Your task to perform on an android device: turn off translation in the chrome app Image 0: 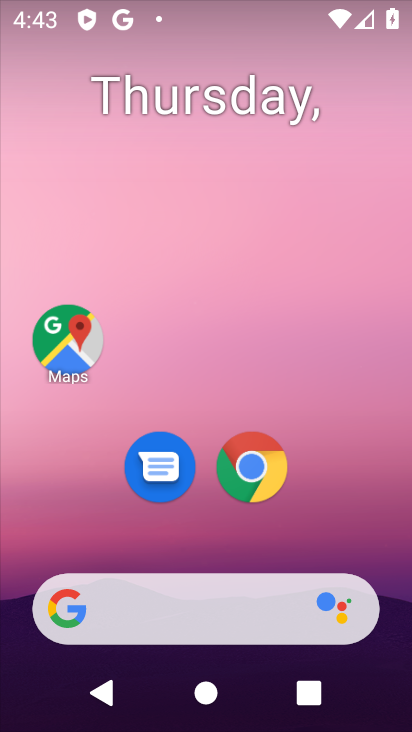
Step 0: click (262, 466)
Your task to perform on an android device: turn off translation in the chrome app Image 1: 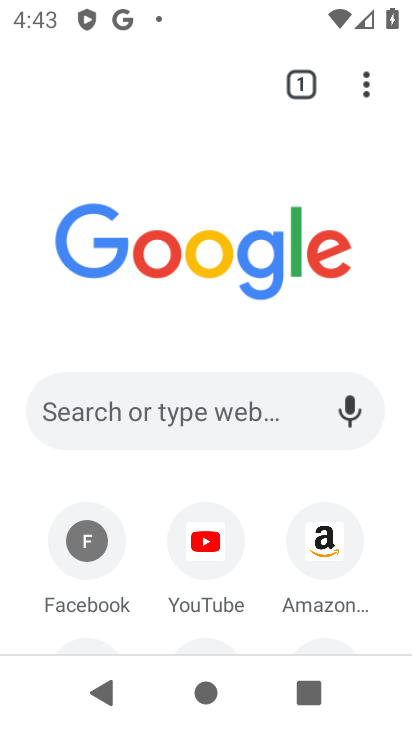
Step 1: drag from (358, 85) to (136, 527)
Your task to perform on an android device: turn off translation in the chrome app Image 2: 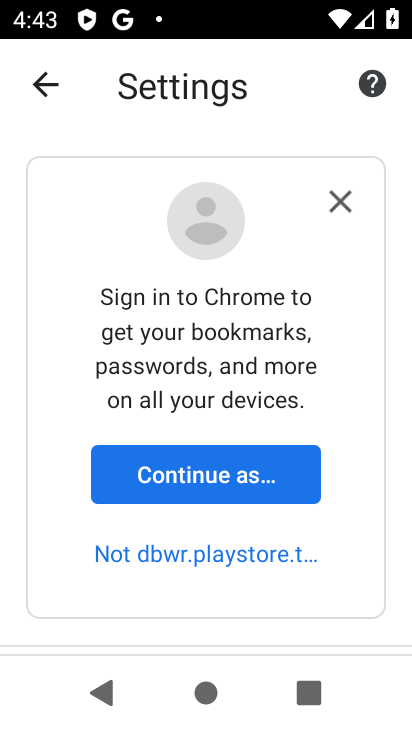
Step 2: drag from (253, 594) to (257, 337)
Your task to perform on an android device: turn off translation in the chrome app Image 3: 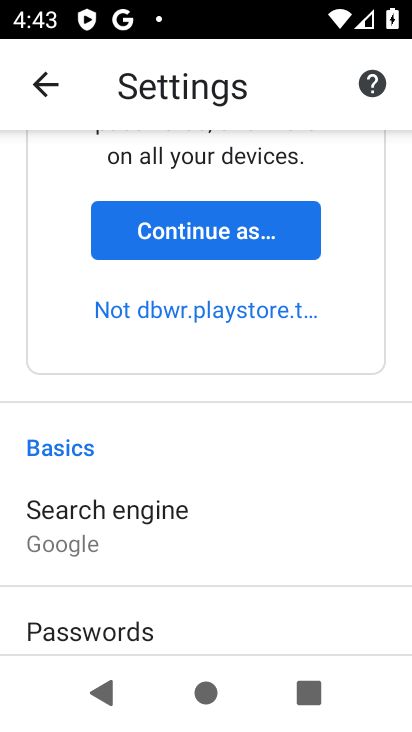
Step 3: drag from (251, 531) to (231, 349)
Your task to perform on an android device: turn off translation in the chrome app Image 4: 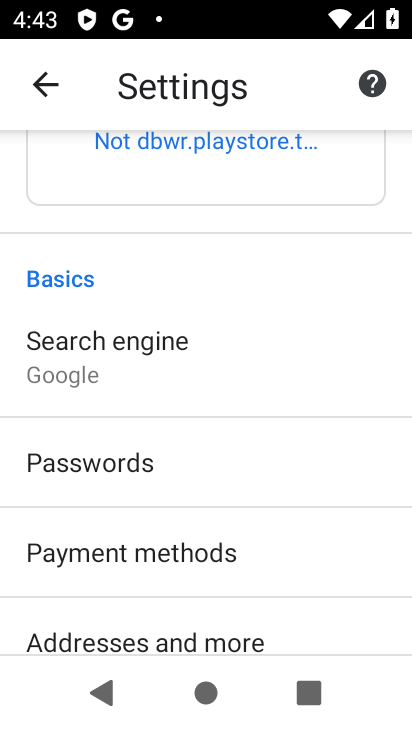
Step 4: drag from (242, 573) to (195, 339)
Your task to perform on an android device: turn off translation in the chrome app Image 5: 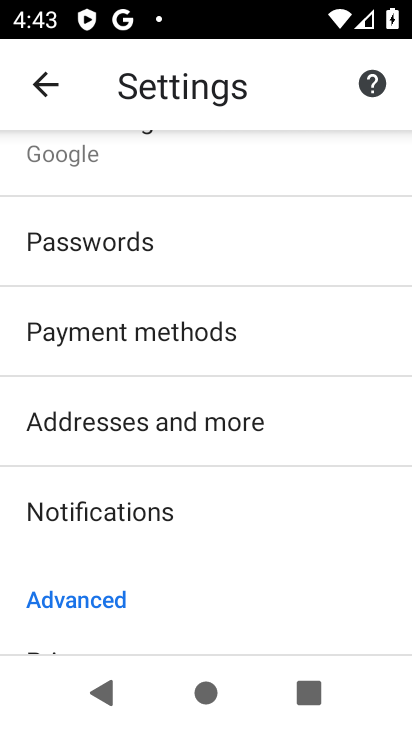
Step 5: drag from (197, 578) to (181, 303)
Your task to perform on an android device: turn off translation in the chrome app Image 6: 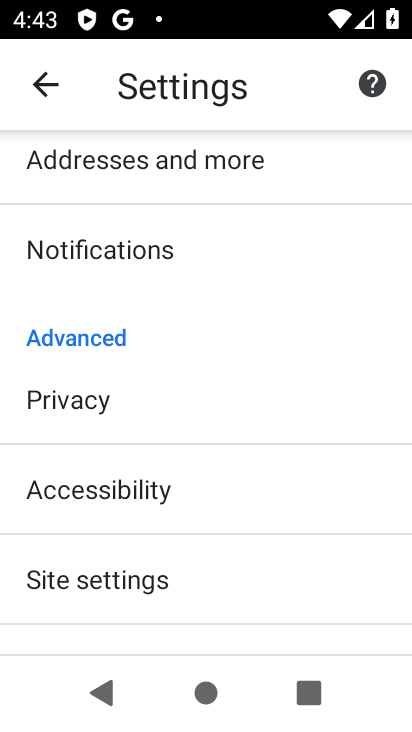
Step 6: drag from (199, 568) to (185, 278)
Your task to perform on an android device: turn off translation in the chrome app Image 7: 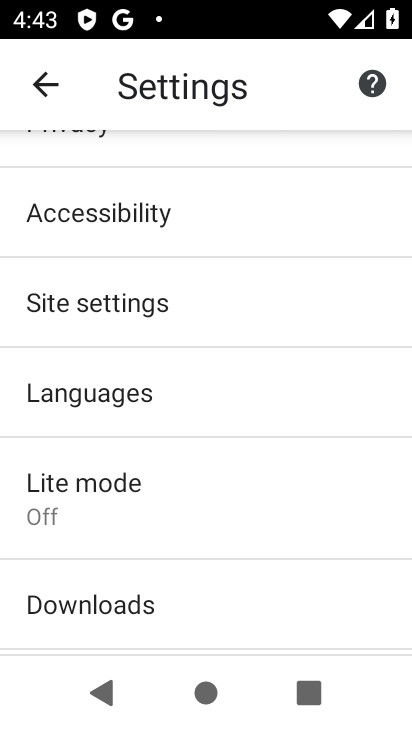
Step 7: click (127, 301)
Your task to perform on an android device: turn off translation in the chrome app Image 8: 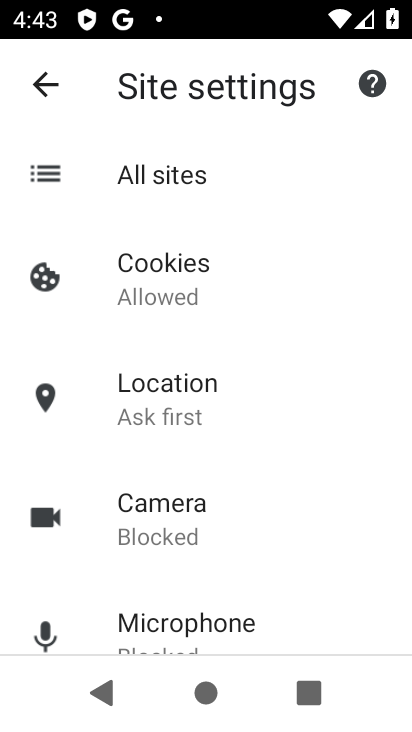
Step 8: drag from (241, 597) to (253, 248)
Your task to perform on an android device: turn off translation in the chrome app Image 9: 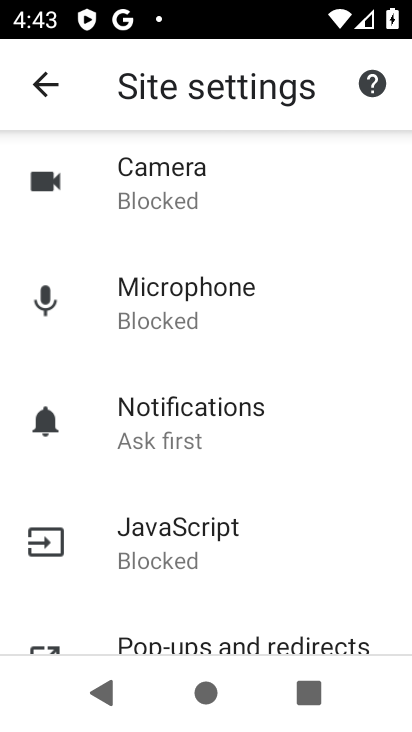
Step 9: click (32, 67)
Your task to perform on an android device: turn off translation in the chrome app Image 10: 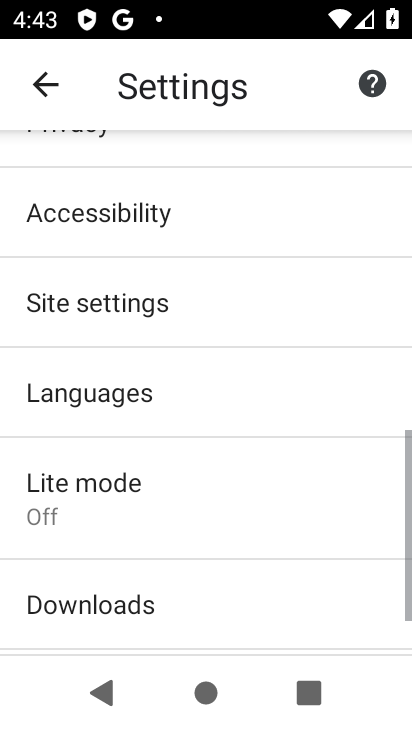
Step 10: drag from (191, 550) to (199, 246)
Your task to perform on an android device: turn off translation in the chrome app Image 11: 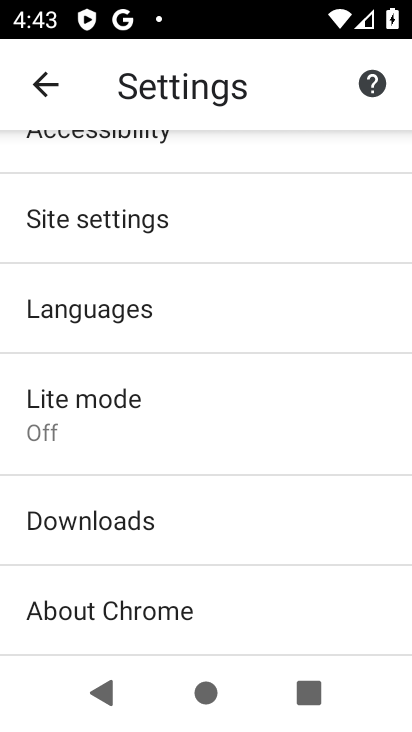
Step 11: click (166, 326)
Your task to perform on an android device: turn off translation in the chrome app Image 12: 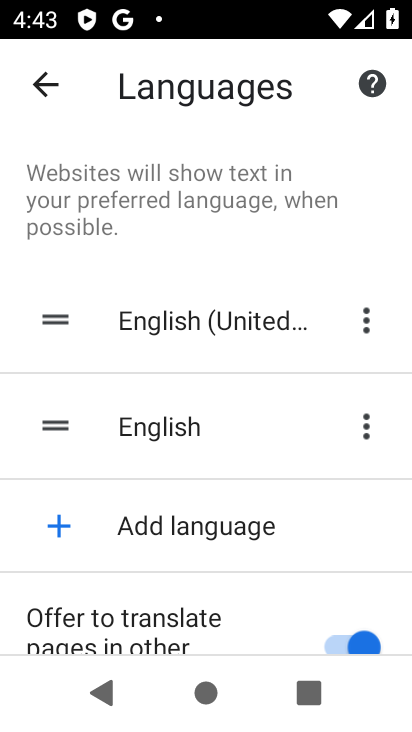
Step 12: drag from (191, 569) to (175, 286)
Your task to perform on an android device: turn off translation in the chrome app Image 13: 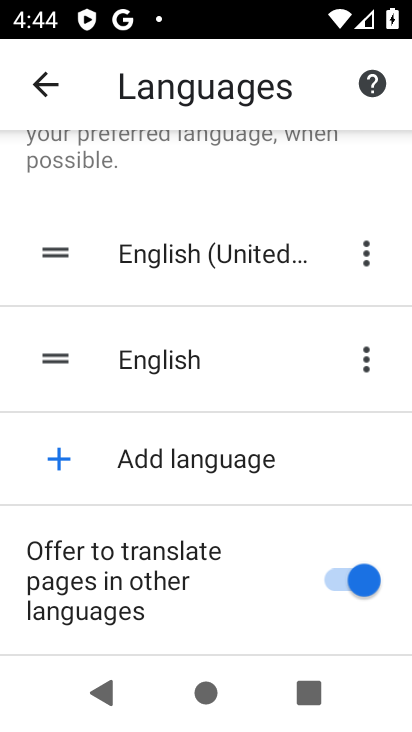
Step 13: click (347, 601)
Your task to perform on an android device: turn off translation in the chrome app Image 14: 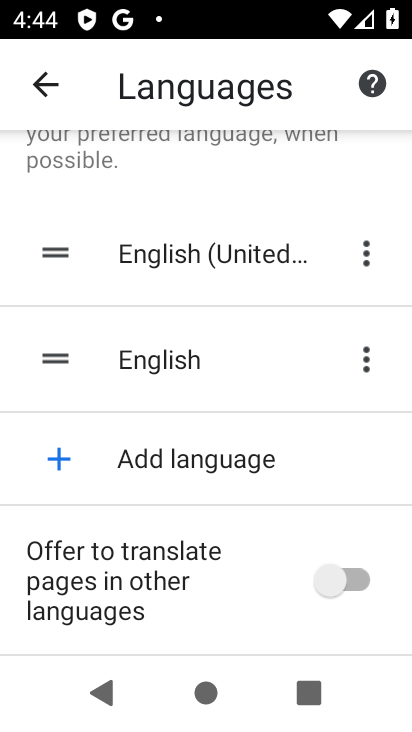
Step 14: task complete